Your task to perform on an android device: What's the weather going to be this weekend? Image 0: 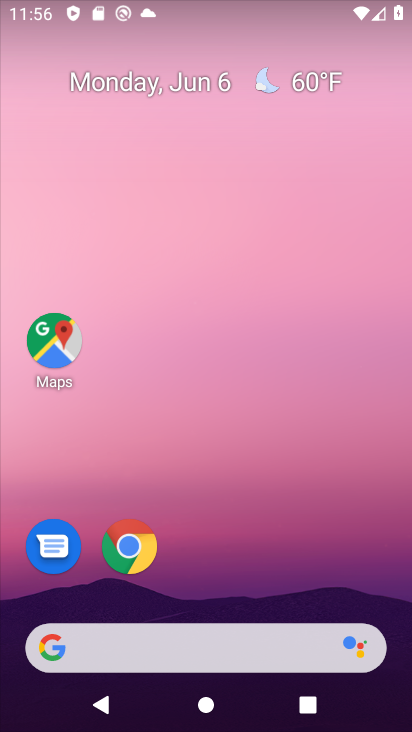
Step 0: click (344, 205)
Your task to perform on an android device: What's the weather going to be this weekend? Image 1: 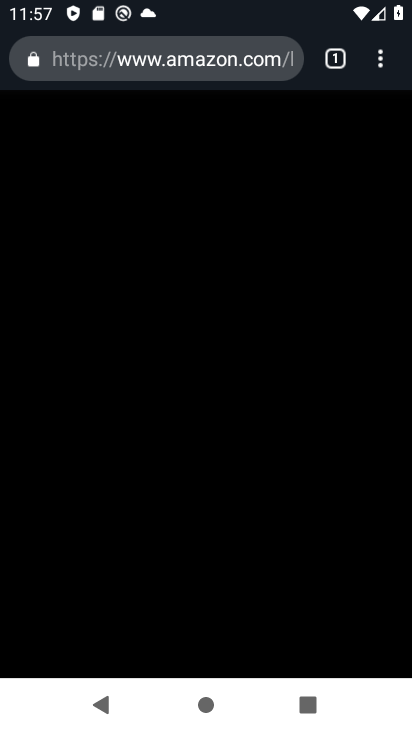
Step 1: press home button
Your task to perform on an android device: What's the weather going to be this weekend? Image 2: 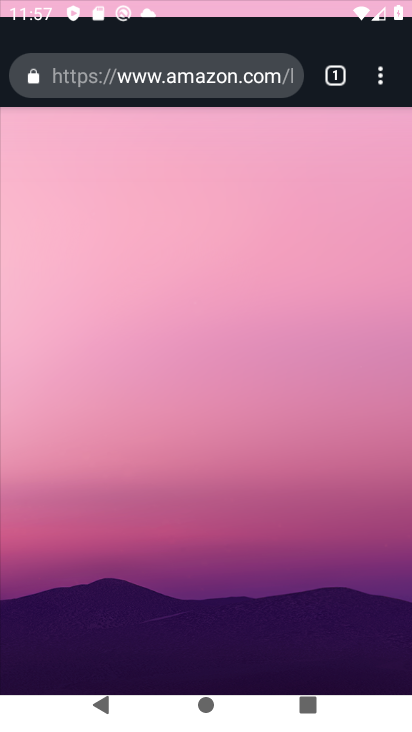
Step 2: drag from (299, 575) to (390, 189)
Your task to perform on an android device: What's the weather going to be this weekend? Image 3: 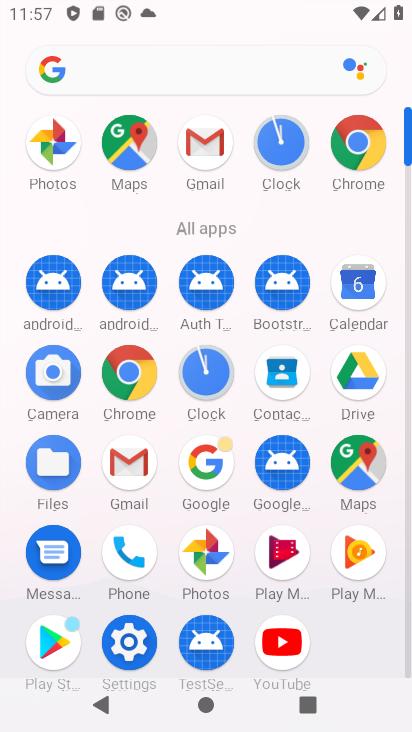
Step 3: click (170, 66)
Your task to perform on an android device: What's the weather going to be this weekend? Image 4: 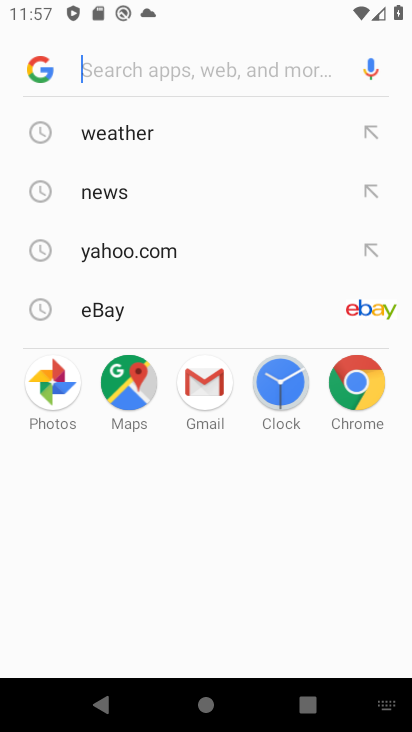
Step 4: click (133, 78)
Your task to perform on an android device: What's the weather going to be this weekend? Image 5: 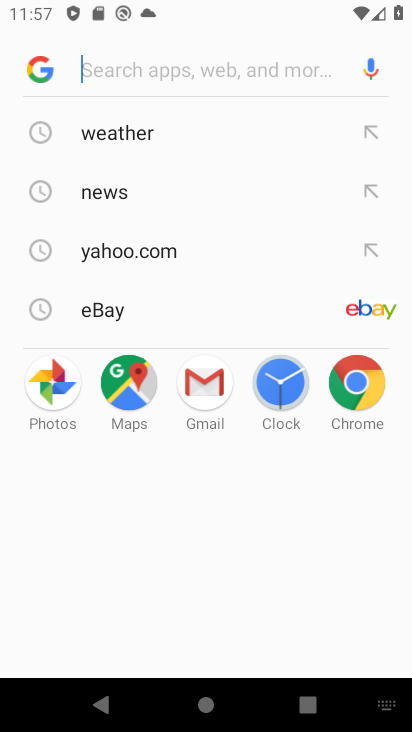
Step 5: type "weather going to be this weekend?"
Your task to perform on an android device: What's the weather going to be this weekend? Image 6: 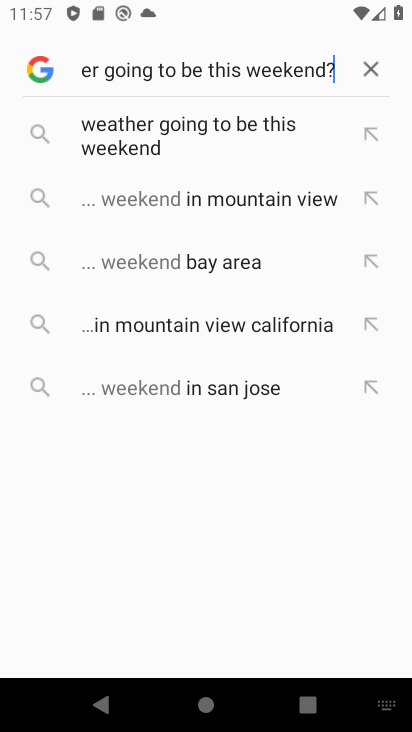
Step 6: click (165, 128)
Your task to perform on an android device: What's the weather going to be this weekend? Image 7: 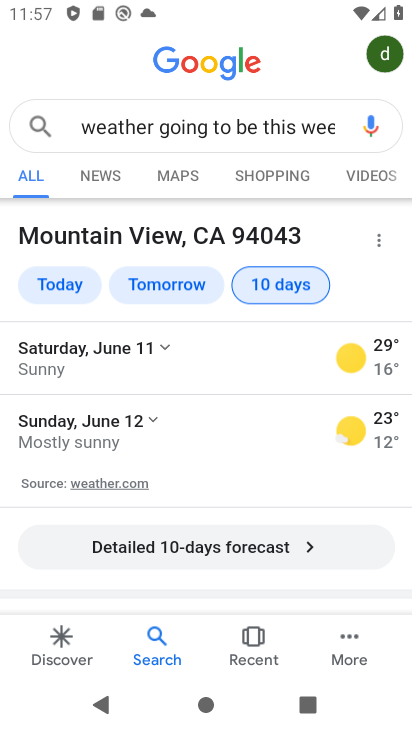
Step 7: task complete